Your task to perform on an android device: check out phone information Image 0: 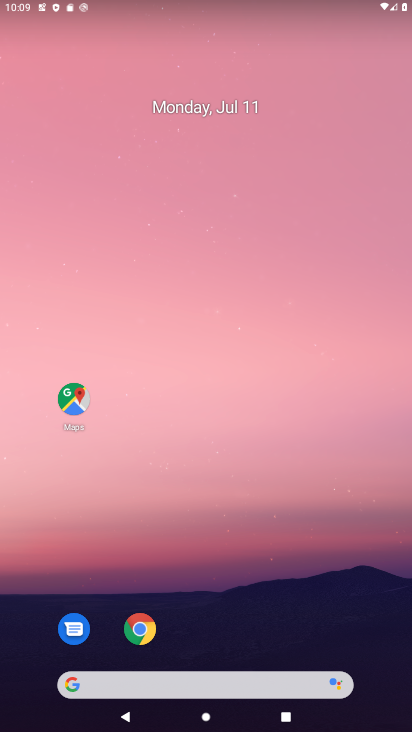
Step 0: drag from (196, 632) to (218, 140)
Your task to perform on an android device: check out phone information Image 1: 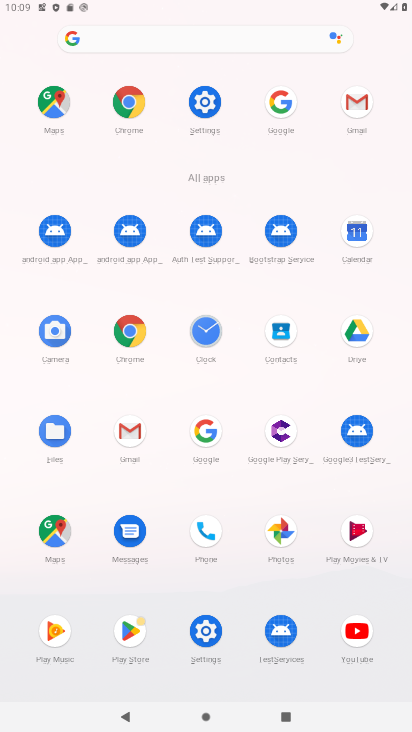
Step 1: click (204, 111)
Your task to perform on an android device: check out phone information Image 2: 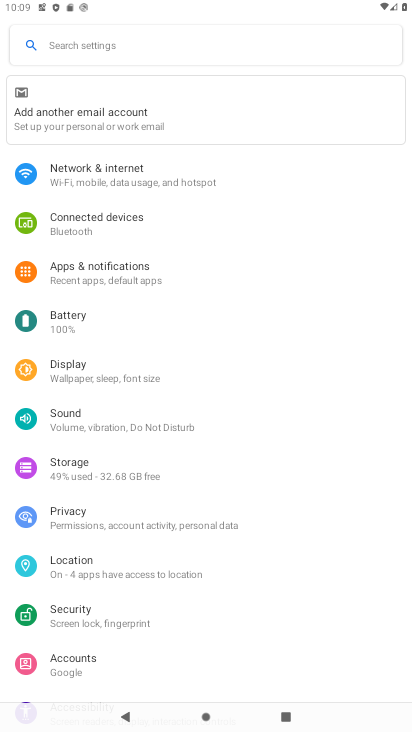
Step 2: drag from (181, 552) to (221, 34)
Your task to perform on an android device: check out phone information Image 3: 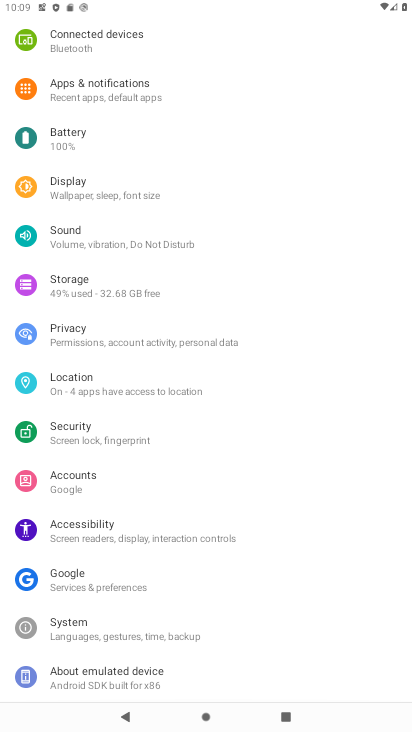
Step 3: drag from (194, 519) to (224, 214)
Your task to perform on an android device: check out phone information Image 4: 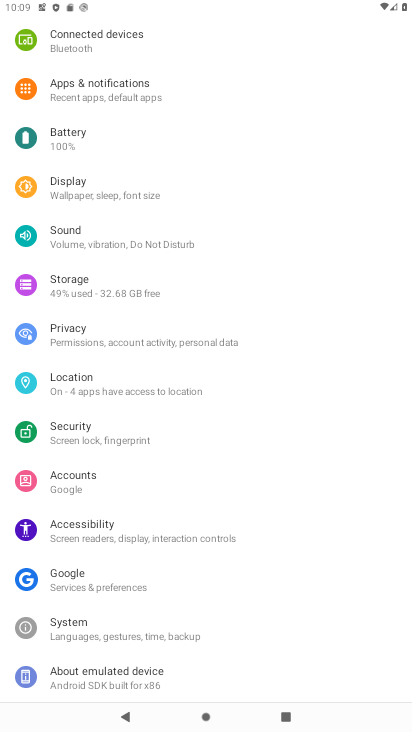
Step 4: click (123, 676)
Your task to perform on an android device: check out phone information Image 5: 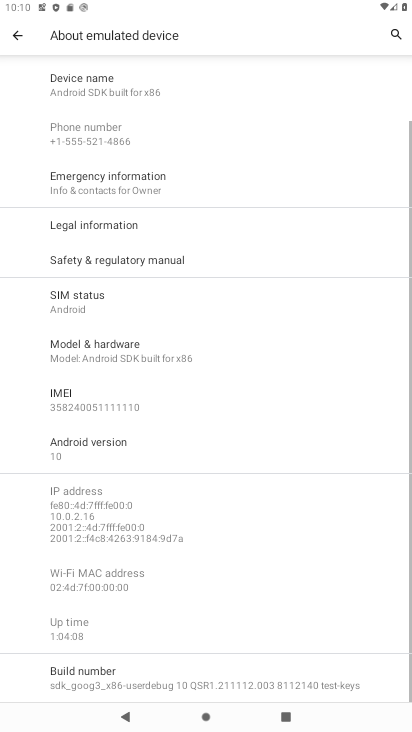
Step 5: task complete